Your task to perform on an android device: Open my contact list Image 0: 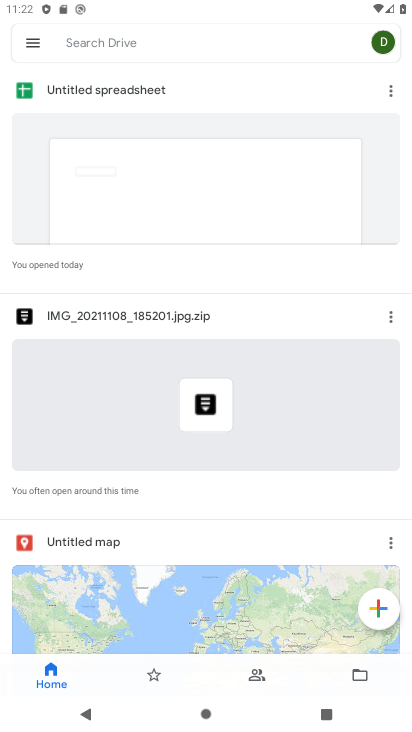
Step 0: press home button
Your task to perform on an android device: Open my contact list Image 1: 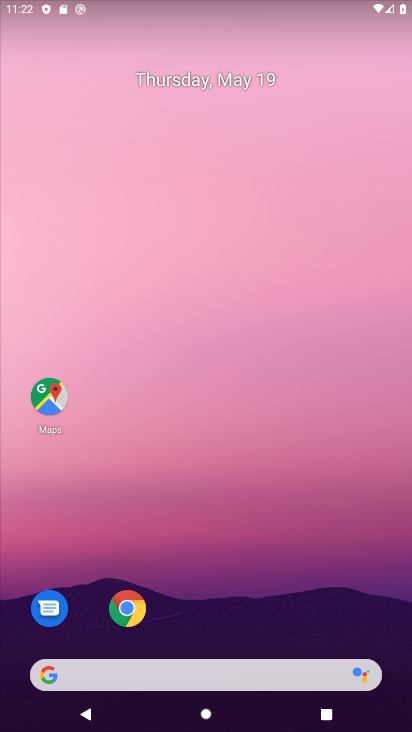
Step 1: drag from (360, 604) to (379, 305)
Your task to perform on an android device: Open my contact list Image 2: 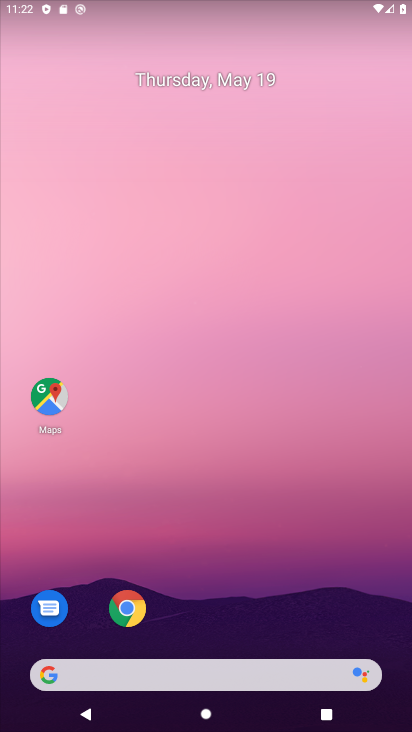
Step 2: drag from (374, 643) to (369, 209)
Your task to perform on an android device: Open my contact list Image 3: 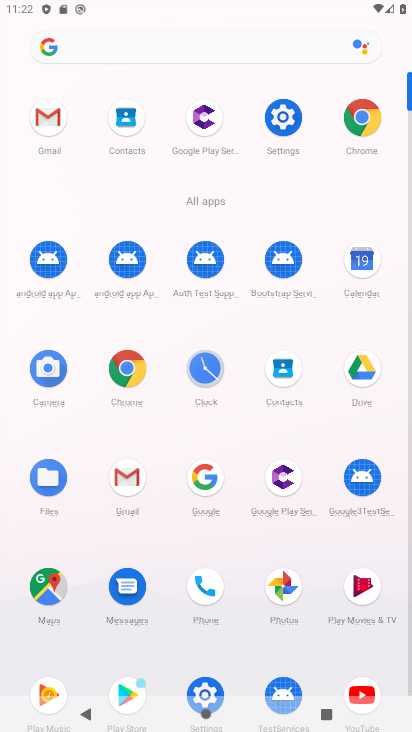
Step 3: click (282, 374)
Your task to perform on an android device: Open my contact list Image 4: 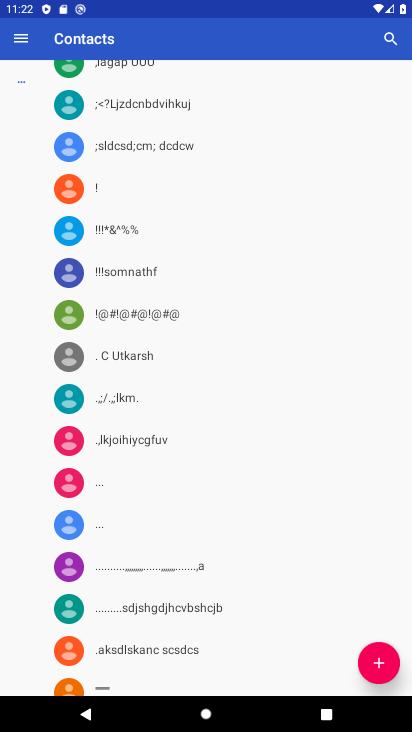
Step 4: task complete